Your task to perform on an android device: Open CNN.com Image 0: 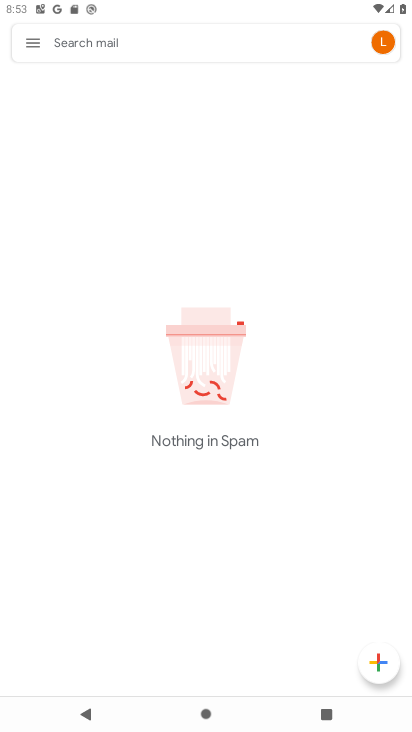
Step 0: press home button
Your task to perform on an android device: Open CNN.com Image 1: 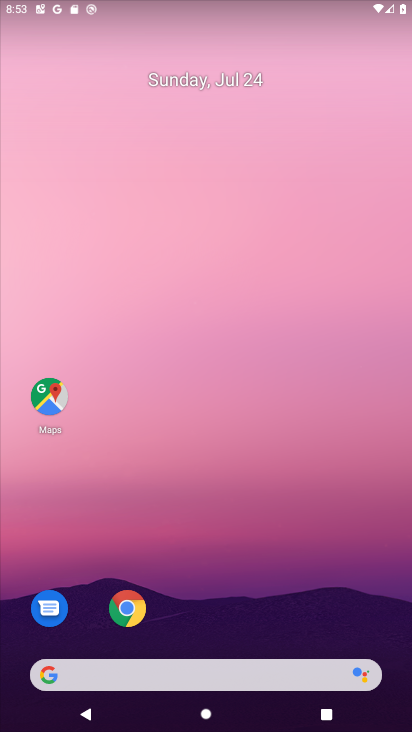
Step 1: click (202, 678)
Your task to perform on an android device: Open CNN.com Image 2: 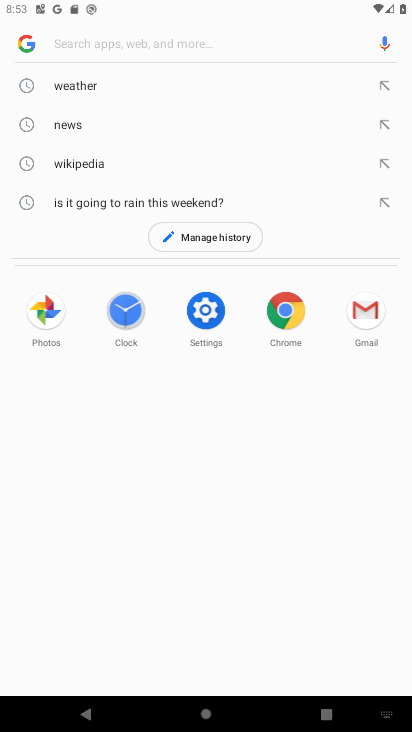
Step 2: type "cnn"
Your task to perform on an android device: Open CNN.com Image 3: 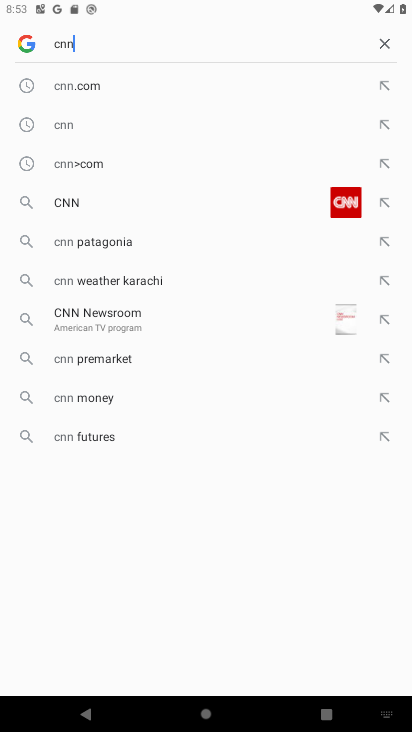
Step 3: click (91, 192)
Your task to perform on an android device: Open CNN.com Image 4: 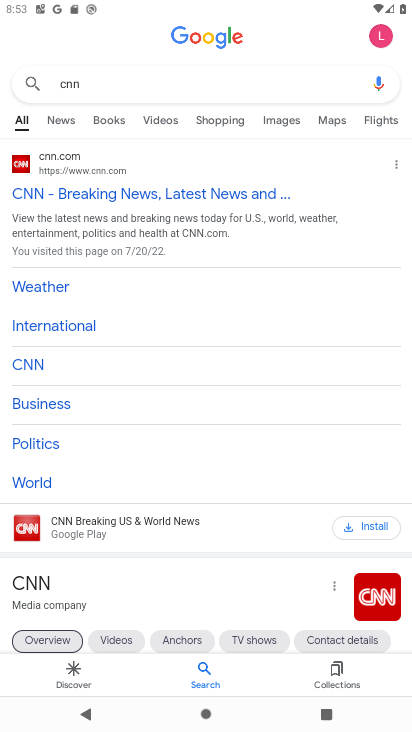
Step 4: click (91, 192)
Your task to perform on an android device: Open CNN.com Image 5: 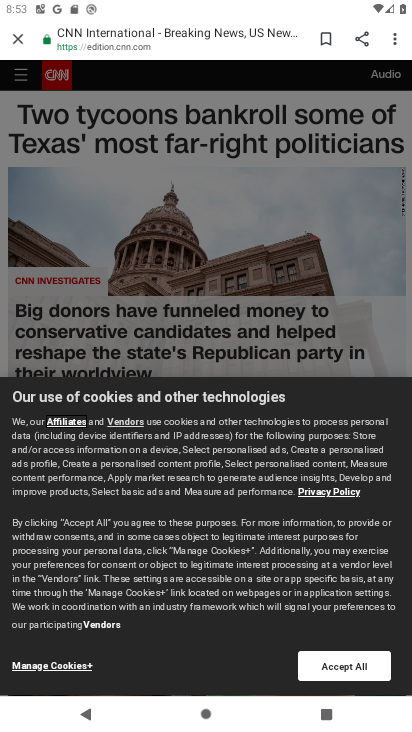
Step 5: task complete